Your task to perform on an android device: toggle priority inbox in the gmail app Image 0: 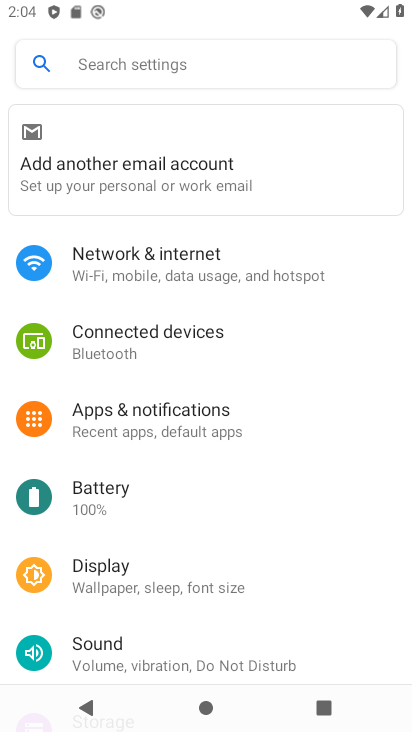
Step 0: press home button
Your task to perform on an android device: toggle priority inbox in the gmail app Image 1: 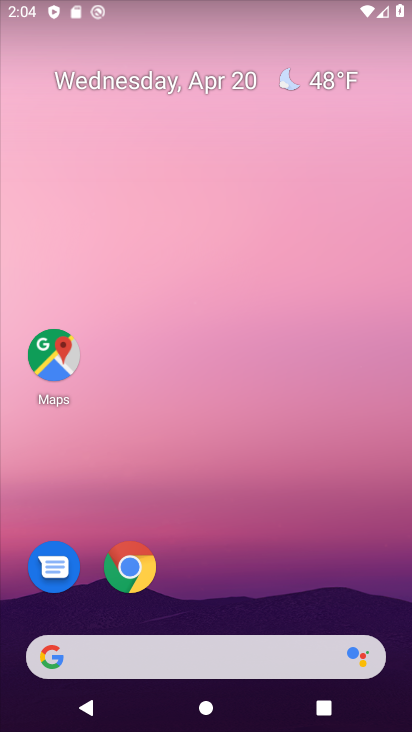
Step 1: drag from (240, 397) to (235, 94)
Your task to perform on an android device: toggle priority inbox in the gmail app Image 2: 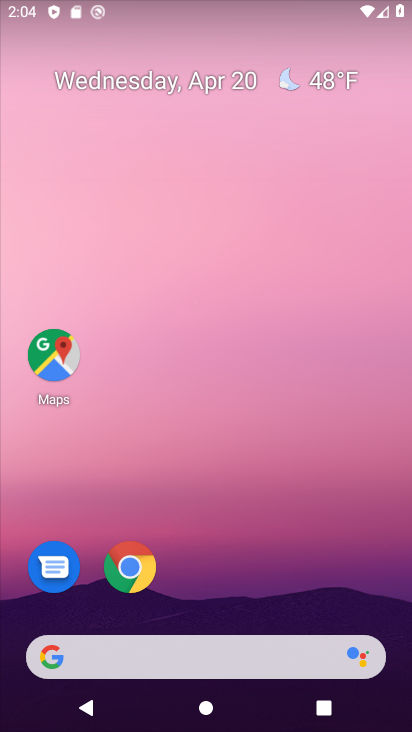
Step 2: drag from (258, 446) to (264, 62)
Your task to perform on an android device: toggle priority inbox in the gmail app Image 3: 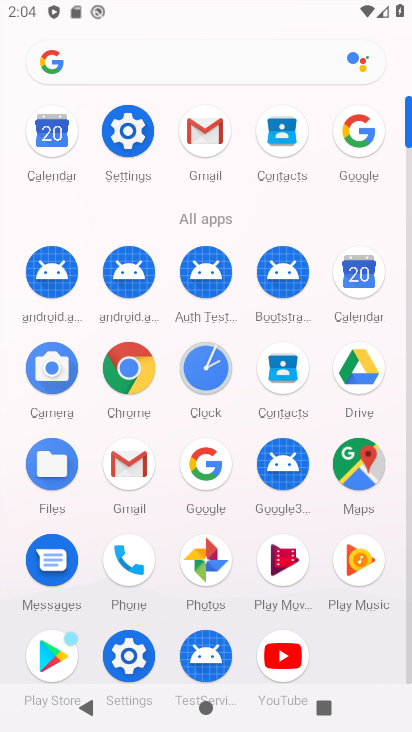
Step 3: click (202, 139)
Your task to perform on an android device: toggle priority inbox in the gmail app Image 4: 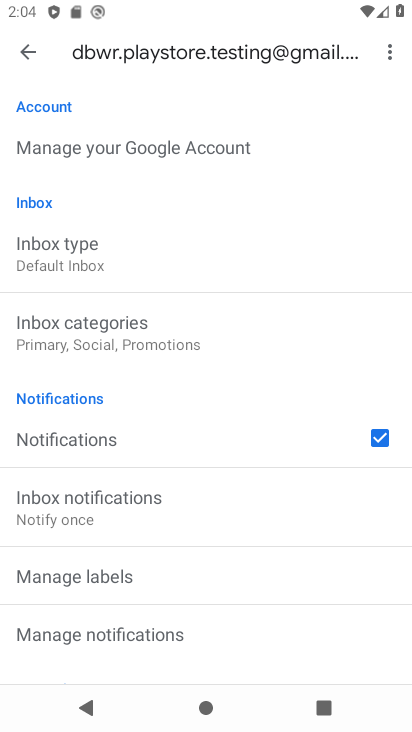
Step 4: click (29, 55)
Your task to perform on an android device: toggle priority inbox in the gmail app Image 5: 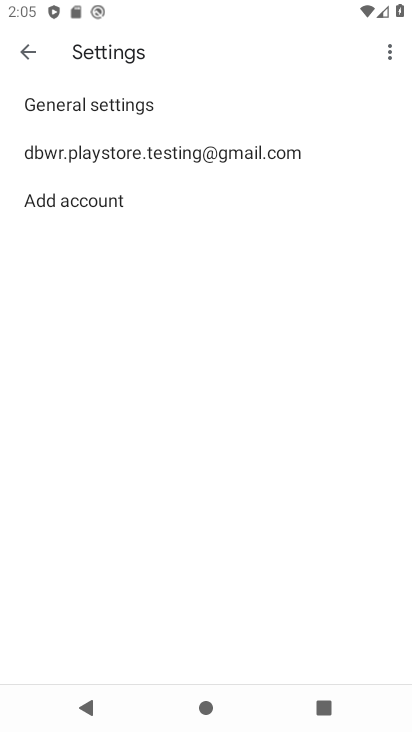
Step 5: click (109, 148)
Your task to perform on an android device: toggle priority inbox in the gmail app Image 6: 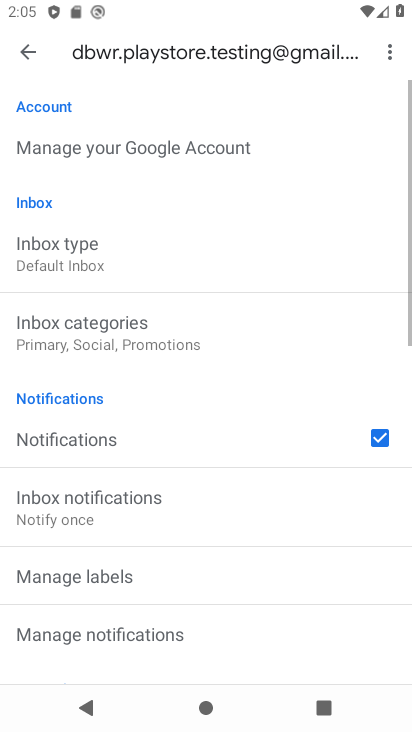
Step 6: click (129, 262)
Your task to perform on an android device: toggle priority inbox in the gmail app Image 7: 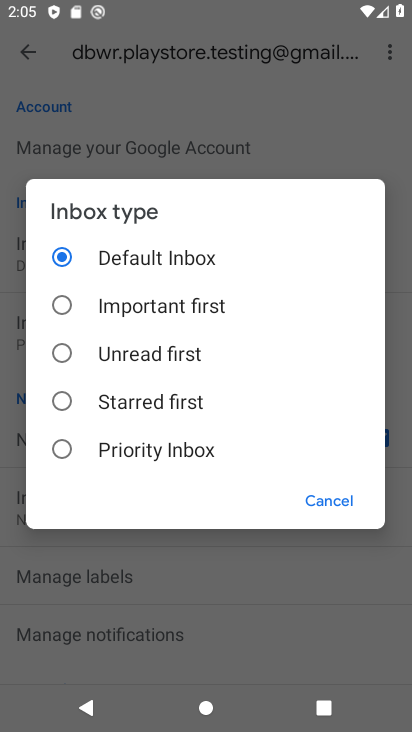
Step 7: click (60, 447)
Your task to perform on an android device: toggle priority inbox in the gmail app Image 8: 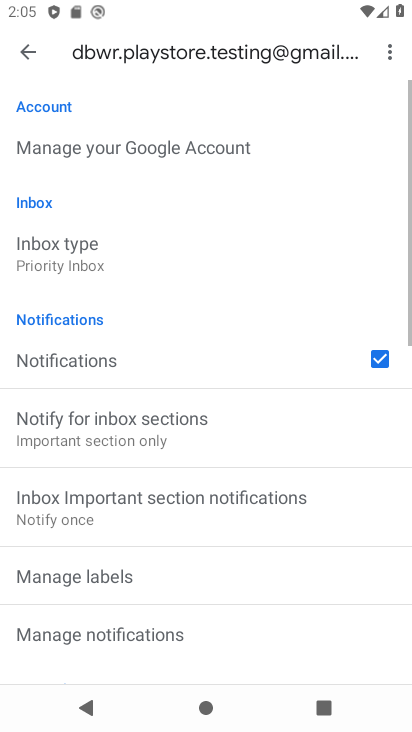
Step 8: task complete